Your task to perform on an android device: check storage Image 0: 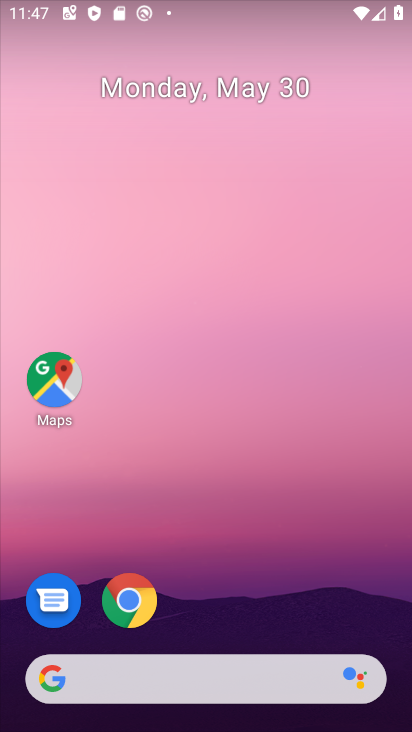
Step 0: drag from (208, 726) to (209, 53)
Your task to perform on an android device: check storage Image 1: 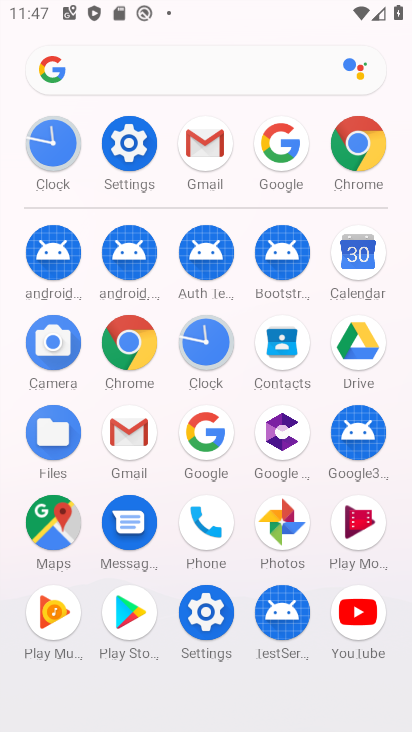
Step 1: click (131, 149)
Your task to perform on an android device: check storage Image 2: 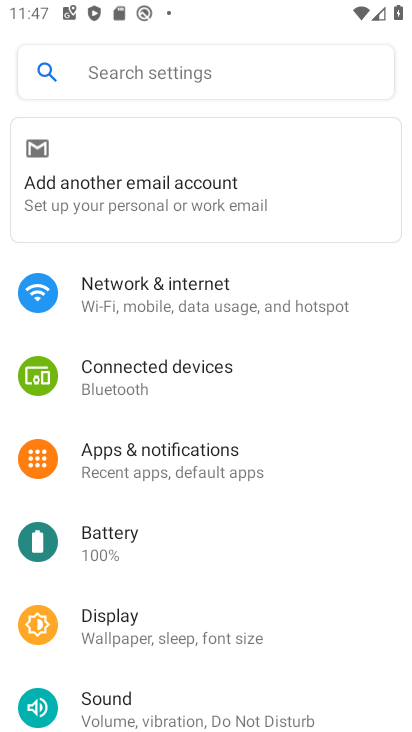
Step 2: drag from (194, 678) to (194, 279)
Your task to perform on an android device: check storage Image 3: 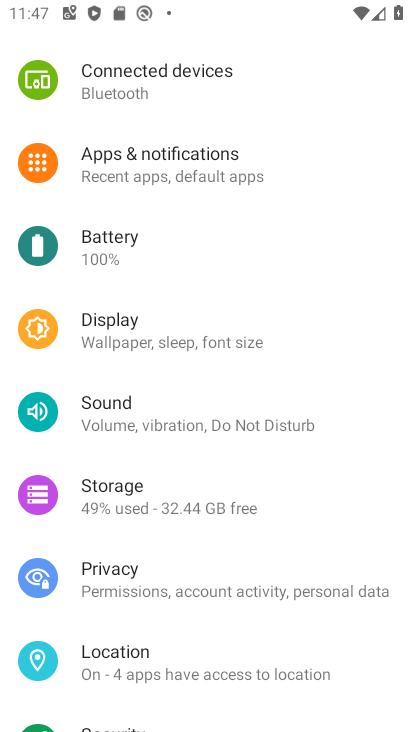
Step 3: click (110, 491)
Your task to perform on an android device: check storage Image 4: 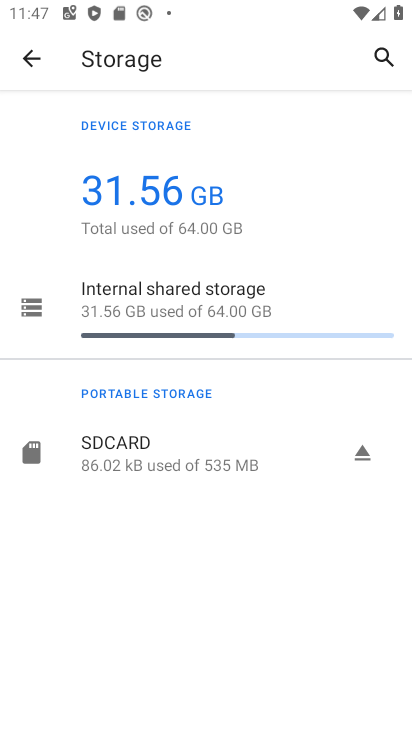
Step 4: task complete